Your task to perform on an android device: Is it going to rain this weekend? Image 0: 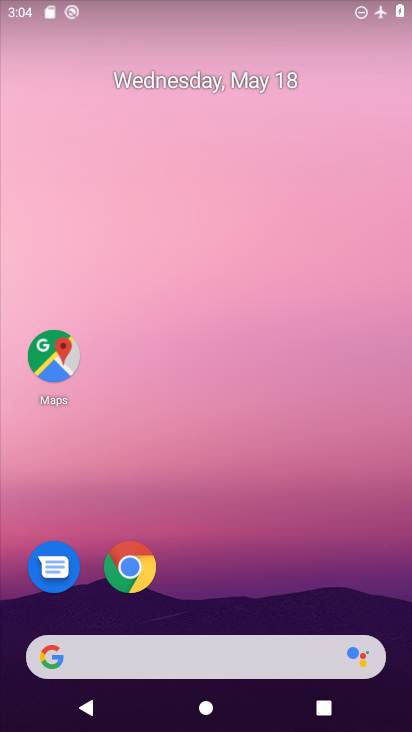
Step 0: drag from (272, 633) to (228, 247)
Your task to perform on an android device: Is it going to rain this weekend? Image 1: 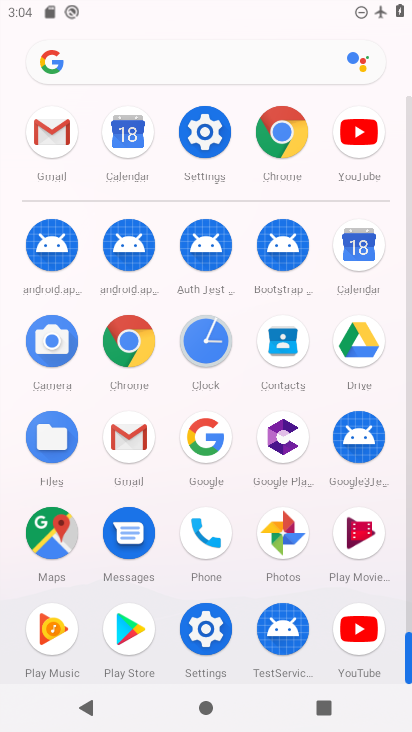
Step 1: click (125, 349)
Your task to perform on an android device: Is it going to rain this weekend? Image 2: 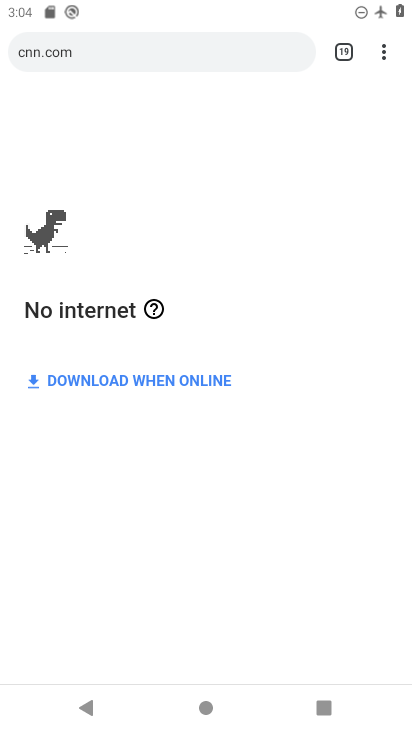
Step 2: click (170, 44)
Your task to perform on an android device: Is it going to rain this weekend? Image 3: 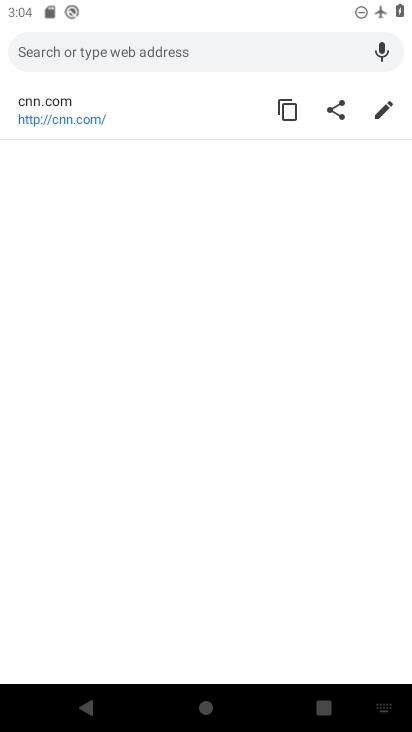
Step 3: click (125, 57)
Your task to perform on an android device: Is it going to rain this weekend? Image 4: 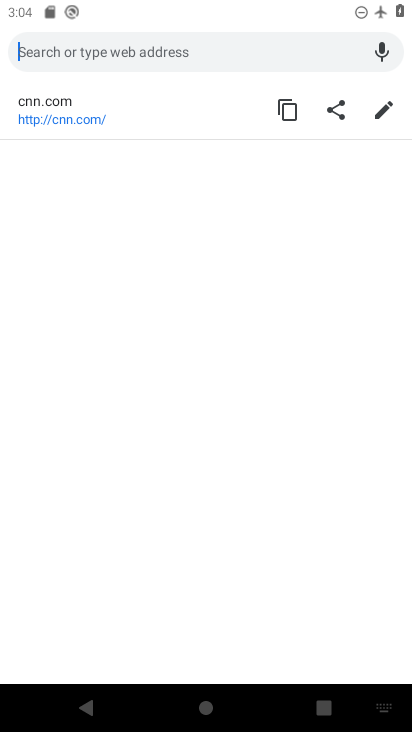
Step 4: click (122, 54)
Your task to perform on an android device: Is it going to rain this weekend? Image 5: 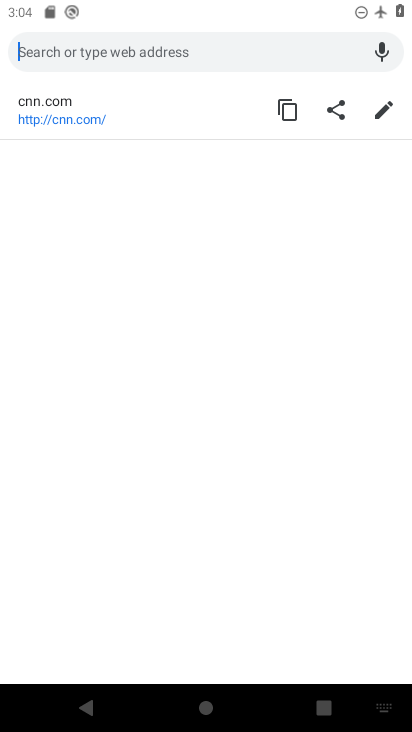
Step 5: type "Is it going to rain this weekend?"
Your task to perform on an android device: Is it going to rain this weekend? Image 6: 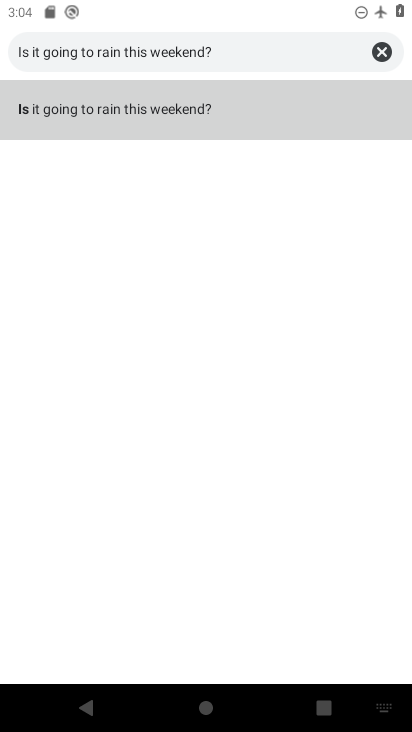
Step 6: click (118, 113)
Your task to perform on an android device: Is it going to rain this weekend? Image 7: 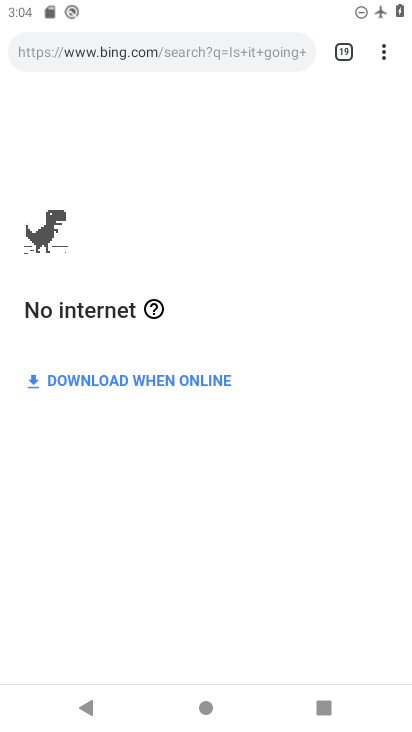
Step 7: task complete